Your task to perform on an android device: toggle show notifications on the lock screen Image 0: 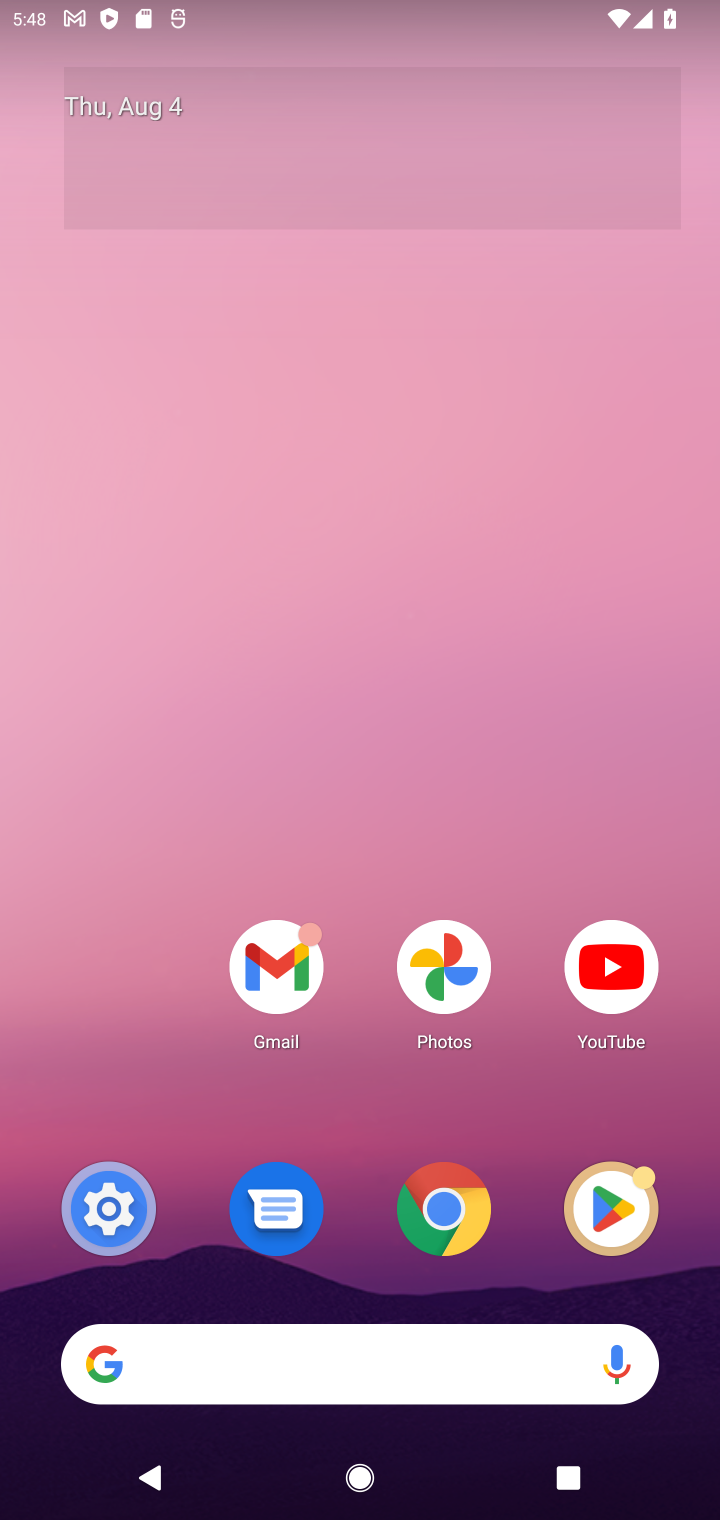
Step 0: drag from (320, 1160) to (400, 3)
Your task to perform on an android device: toggle show notifications on the lock screen Image 1: 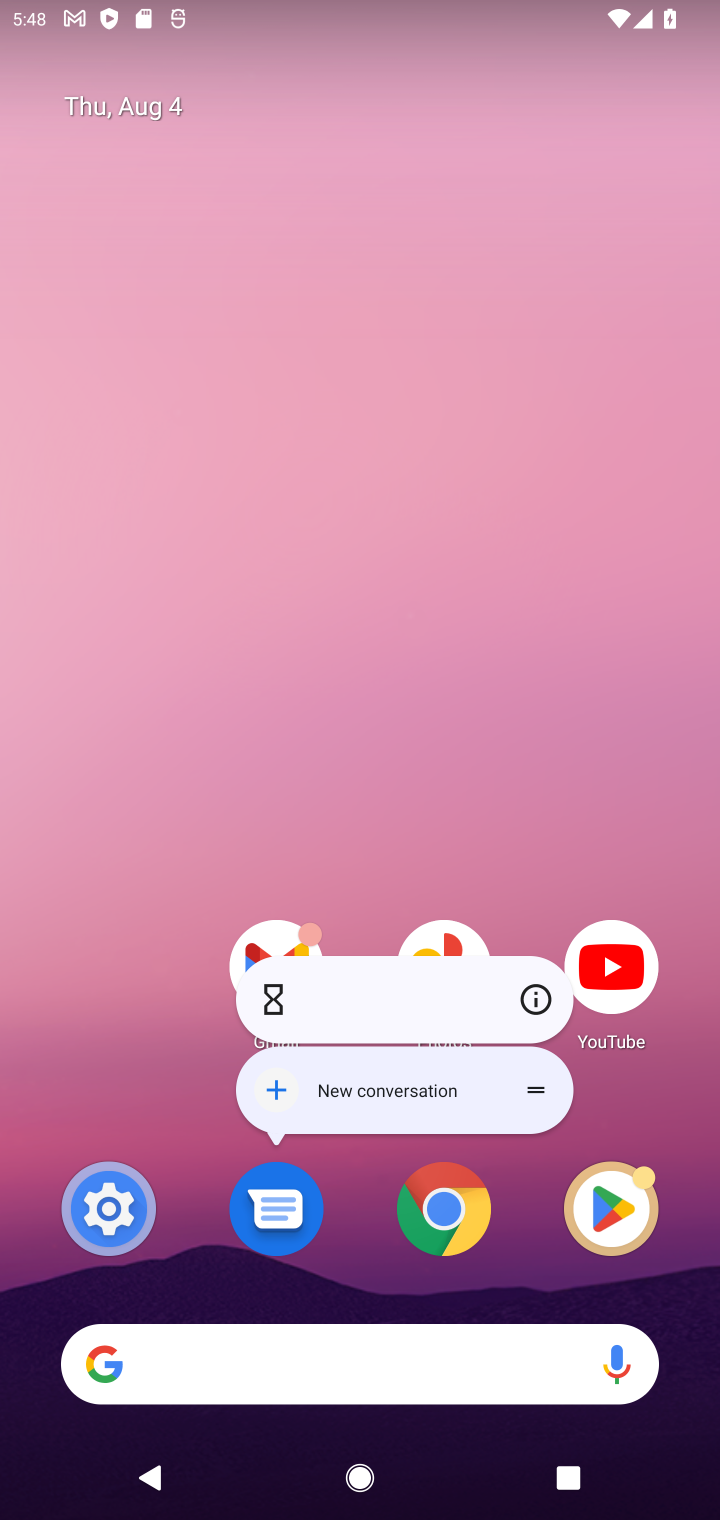
Step 1: click (336, 1357)
Your task to perform on an android device: toggle show notifications on the lock screen Image 2: 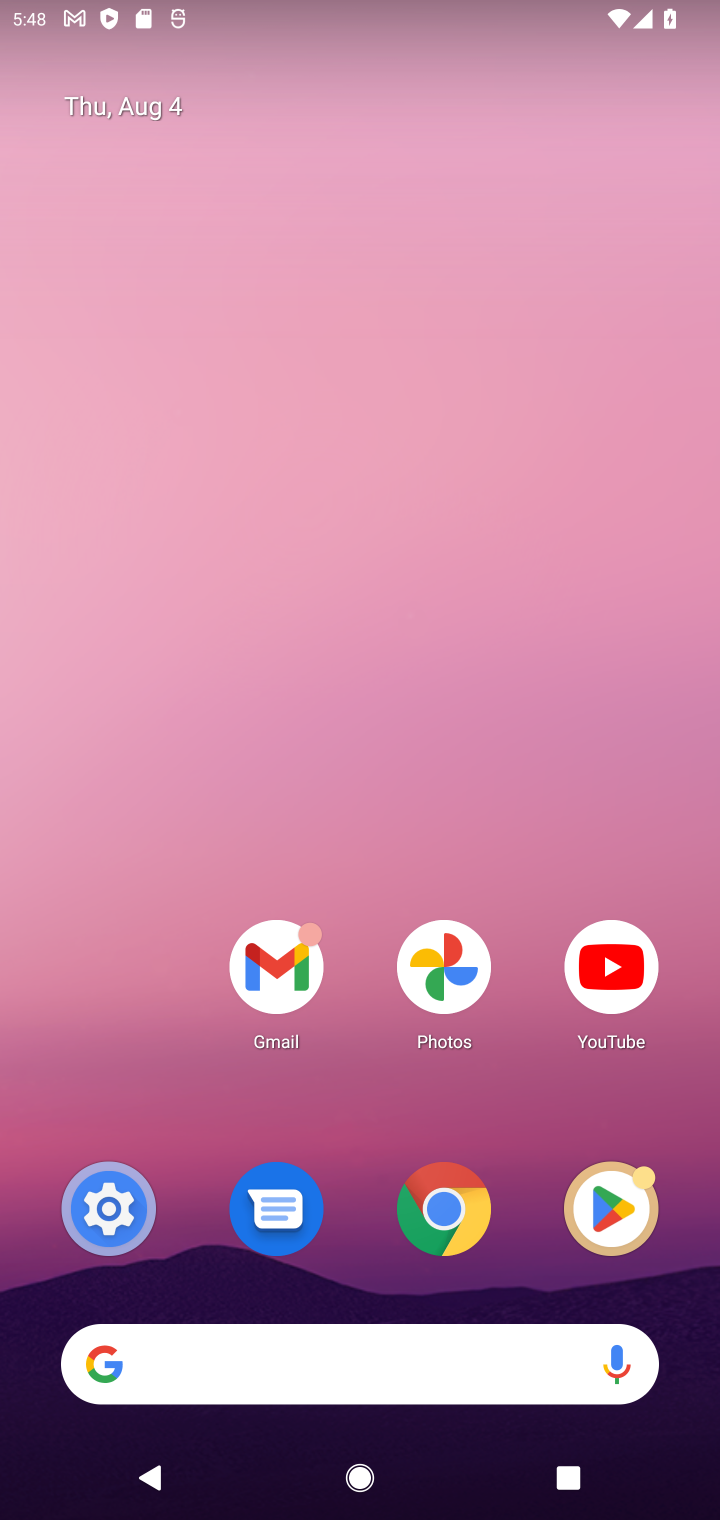
Step 2: click (113, 1240)
Your task to perform on an android device: toggle show notifications on the lock screen Image 3: 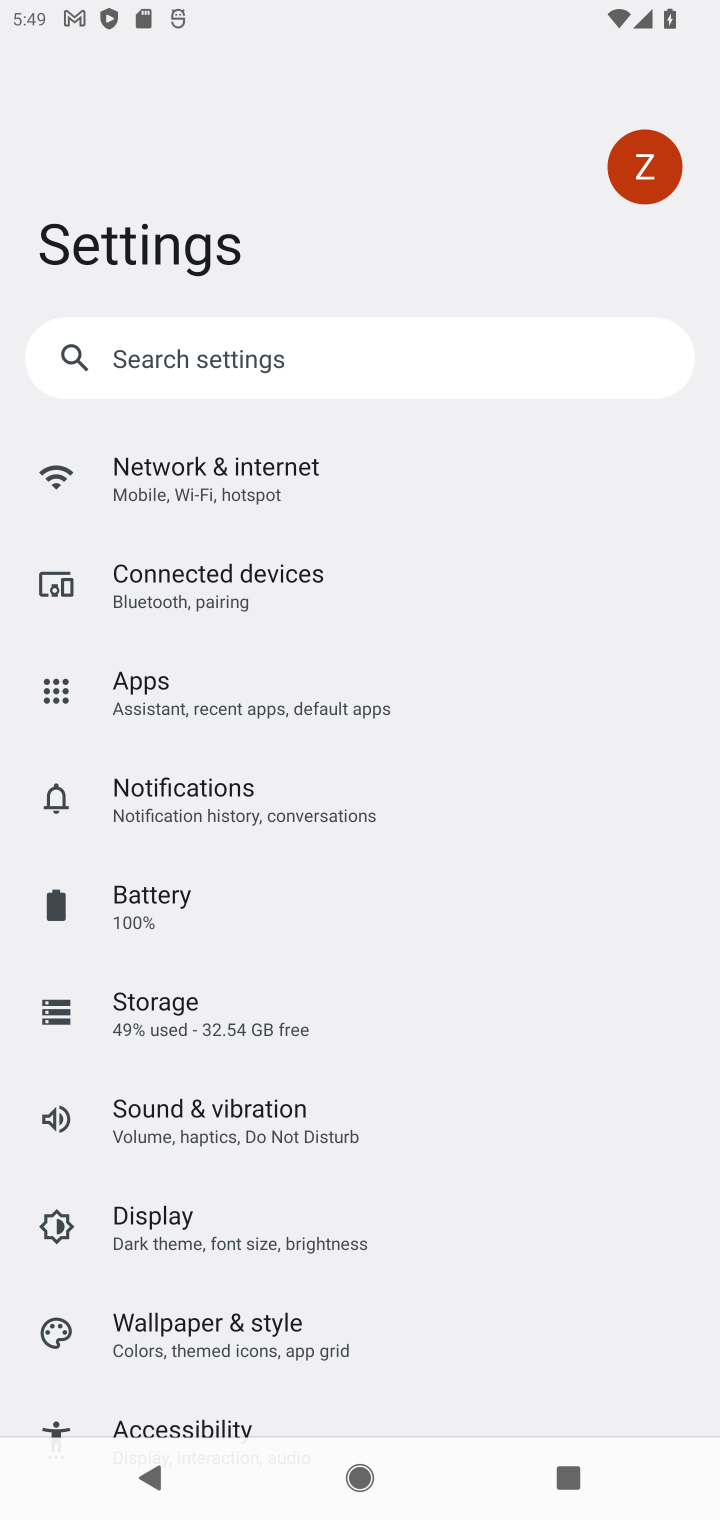
Step 3: click (205, 813)
Your task to perform on an android device: toggle show notifications on the lock screen Image 4: 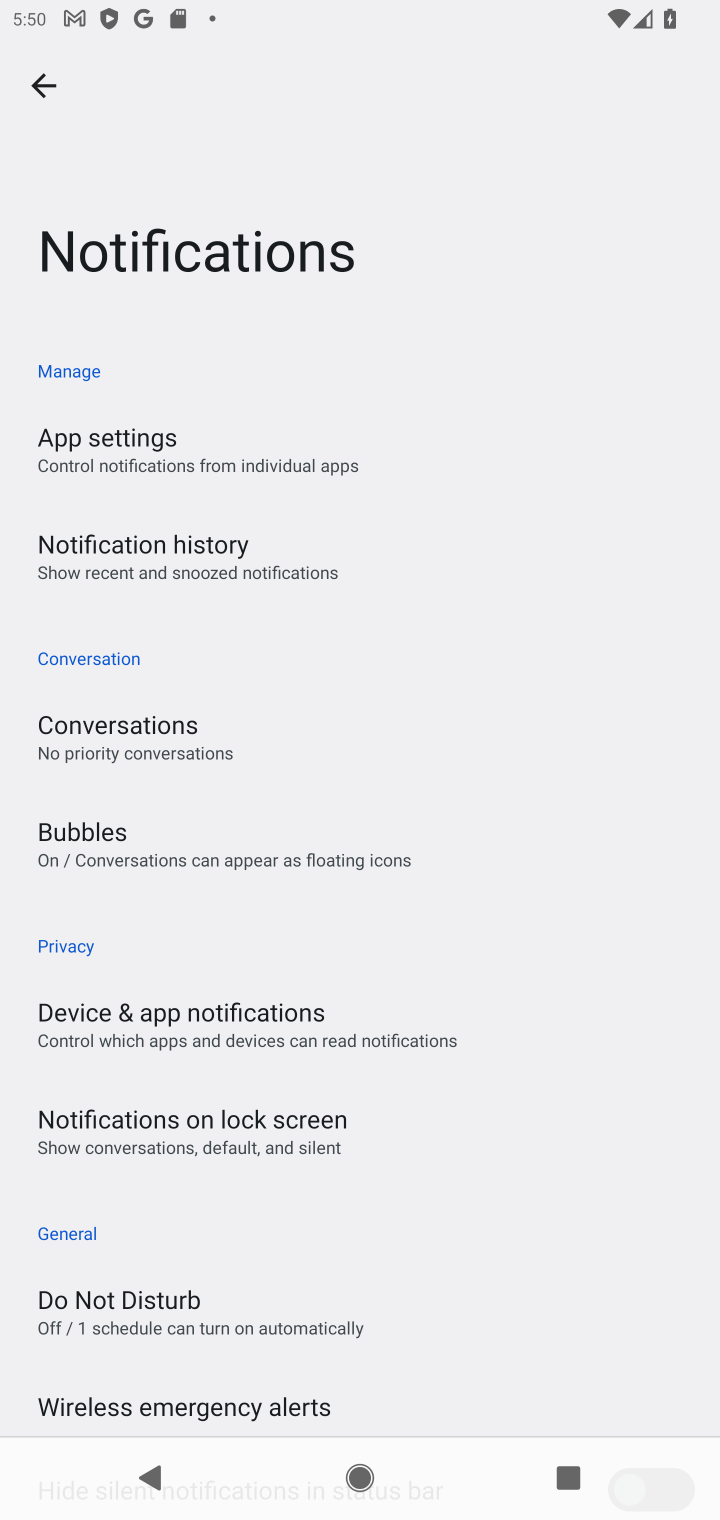
Step 4: click (281, 1138)
Your task to perform on an android device: toggle show notifications on the lock screen Image 5: 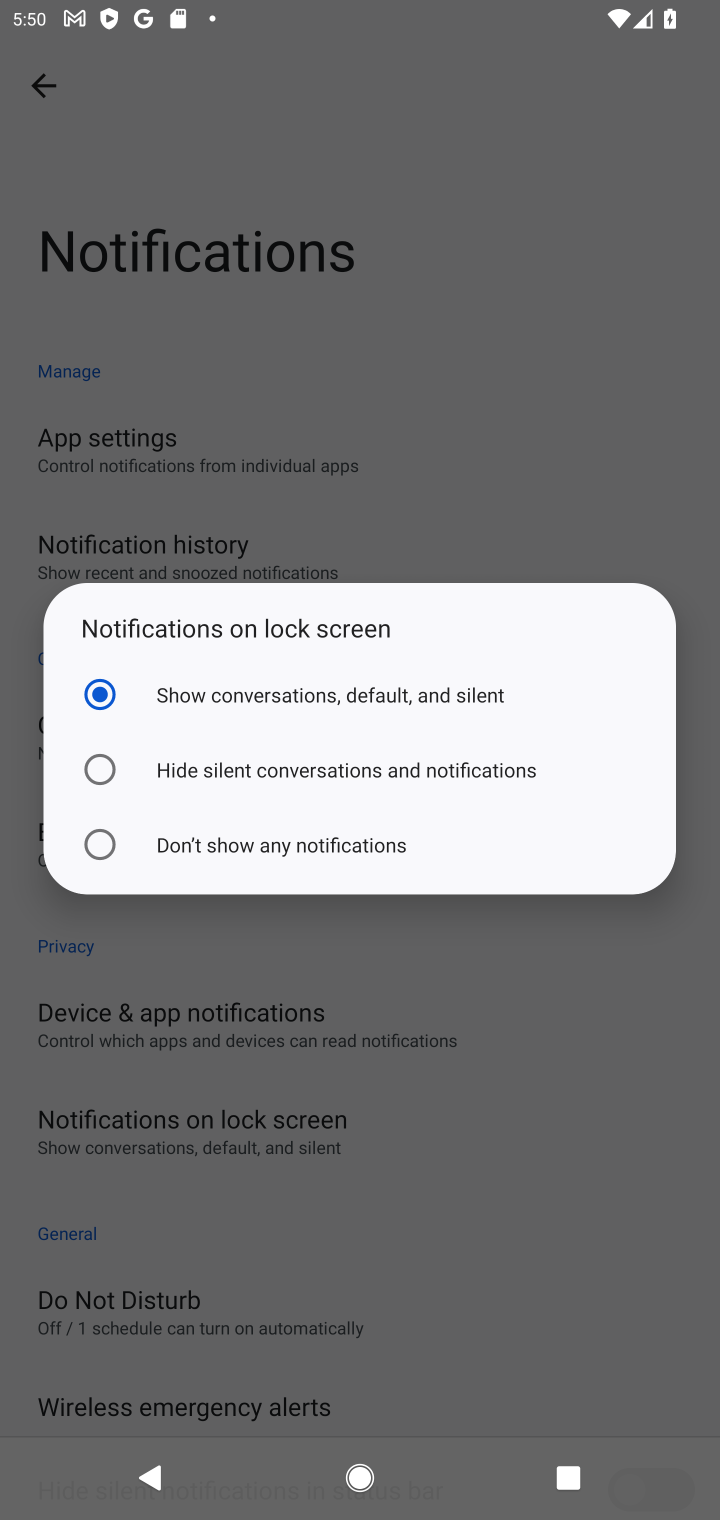
Step 5: click (186, 681)
Your task to perform on an android device: toggle show notifications on the lock screen Image 6: 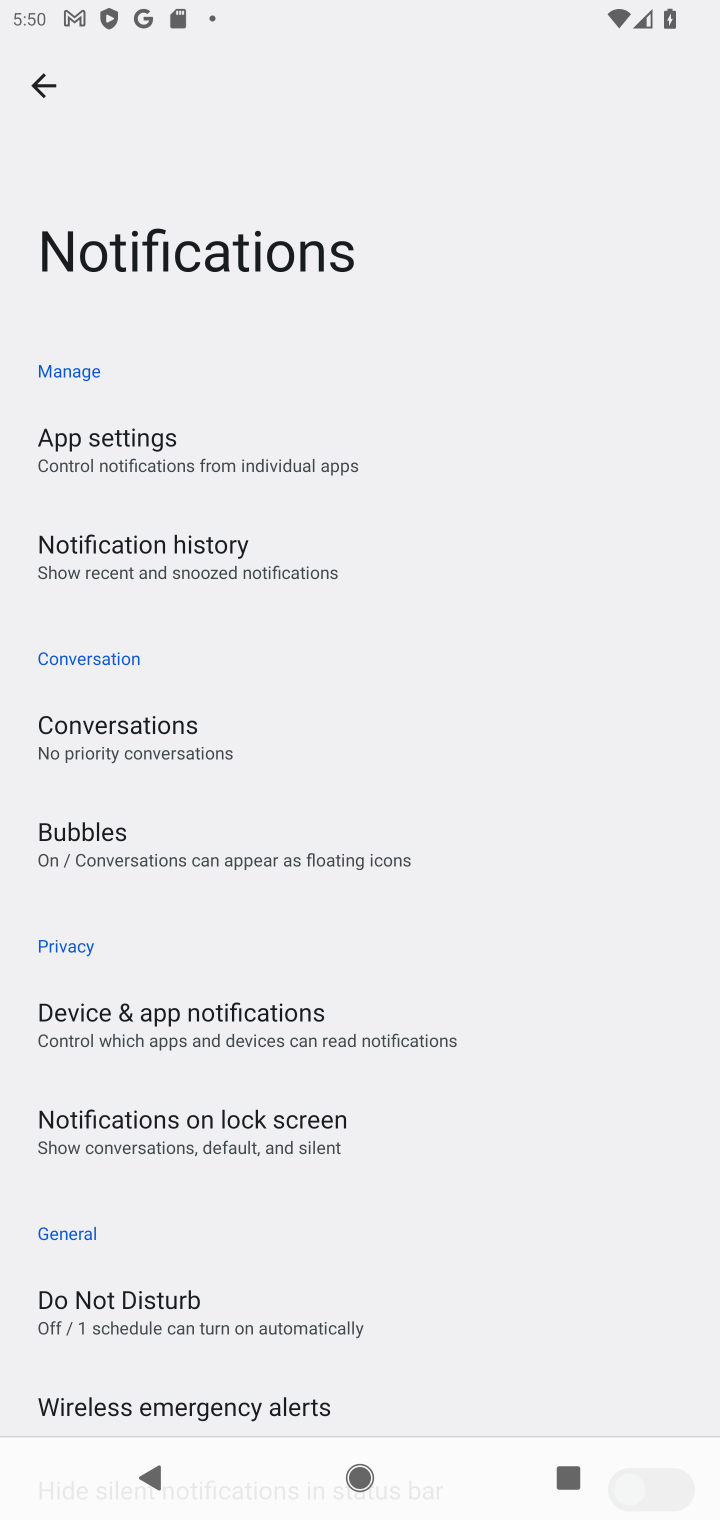
Step 6: task complete